Your task to perform on an android device: Open the phone app and click the voicemail tab. Image 0: 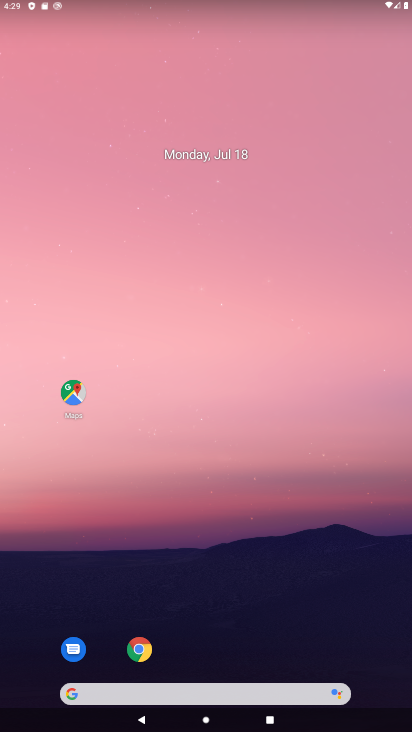
Step 0: drag from (220, 654) to (200, 0)
Your task to perform on an android device: Open the phone app and click the voicemail tab. Image 1: 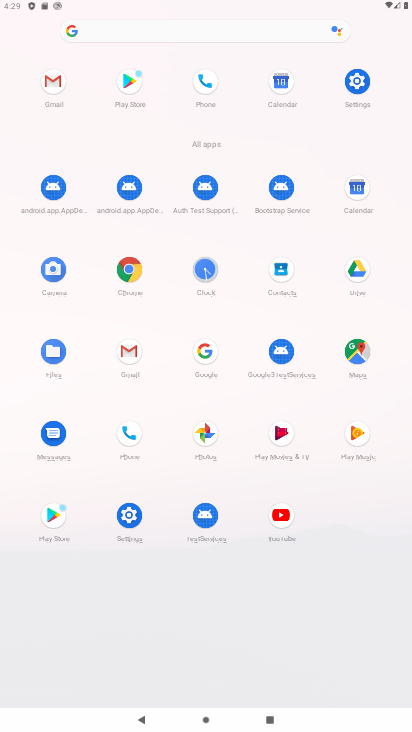
Step 1: click (129, 434)
Your task to perform on an android device: Open the phone app and click the voicemail tab. Image 2: 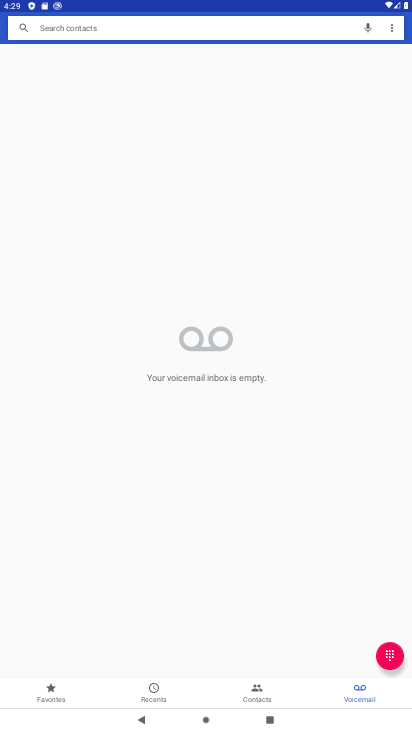
Step 2: task complete